Your task to perform on an android device: toggle airplane mode Image 0: 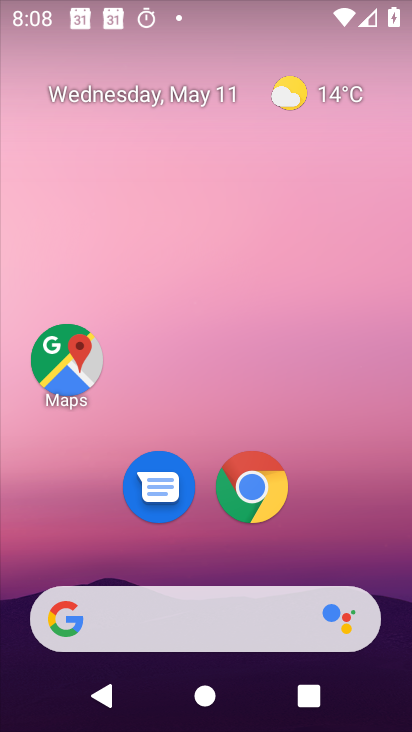
Step 0: drag from (214, 726) to (188, 175)
Your task to perform on an android device: toggle airplane mode Image 1: 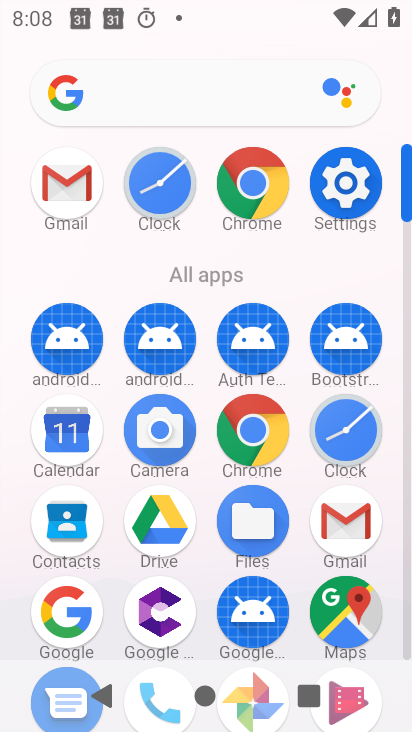
Step 1: click (354, 183)
Your task to perform on an android device: toggle airplane mode Image 2: 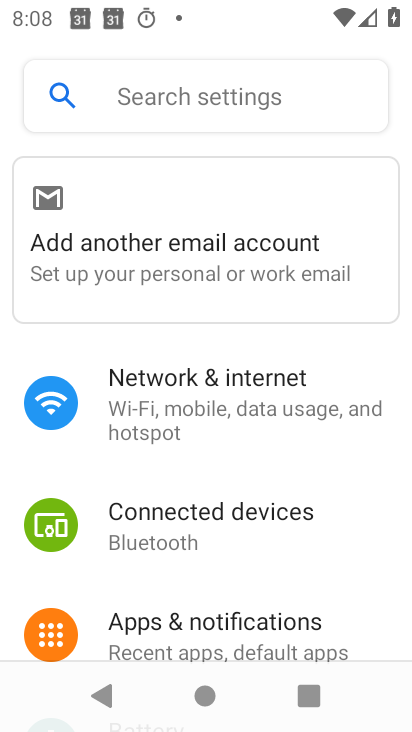
Step 2: click (186, 401)
Your task to perform on an android device: toggle airplane mode Image 3: 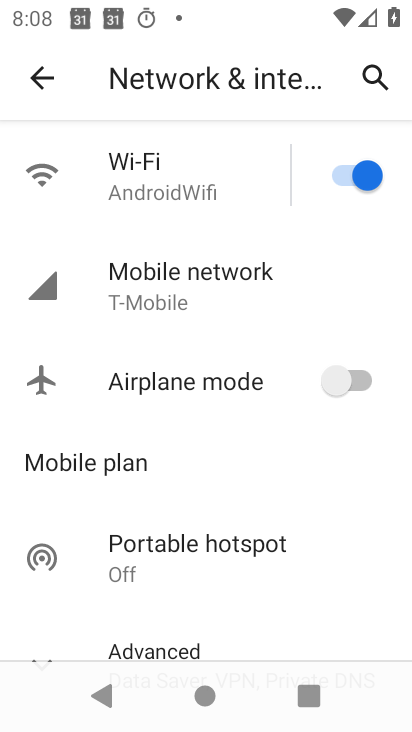
Step 3: click (362, 381)
Your task to perform on an android device: toggle airplane mode Image 4: 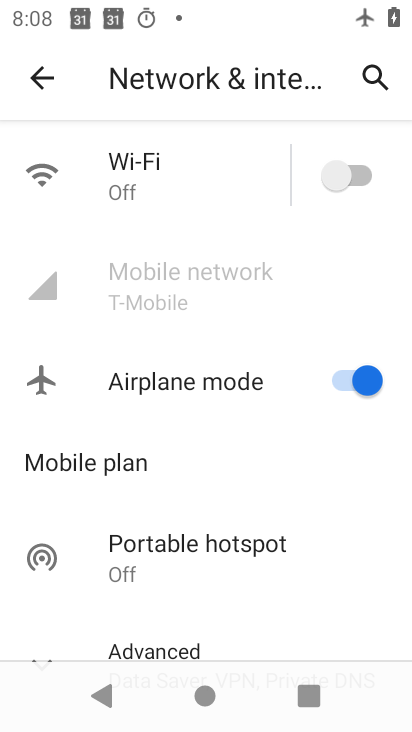
Step 4: task complete